Your task to perform on an android device: Go to network settings Image 0: 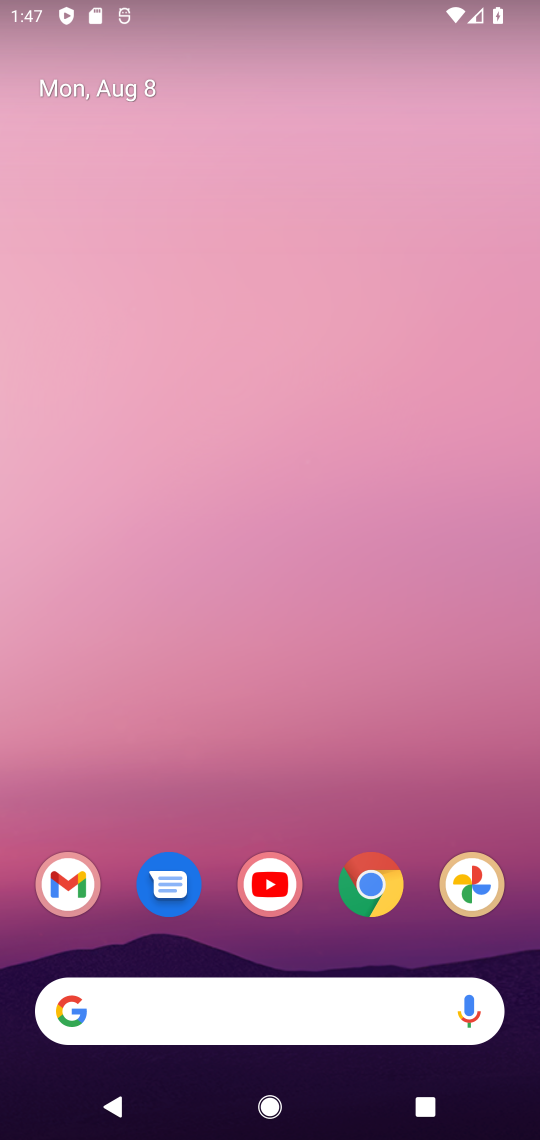
Step 0: drag from (304, 796) to (295, 18)
Your task to perform on an android device: Go to network settings Image 1: 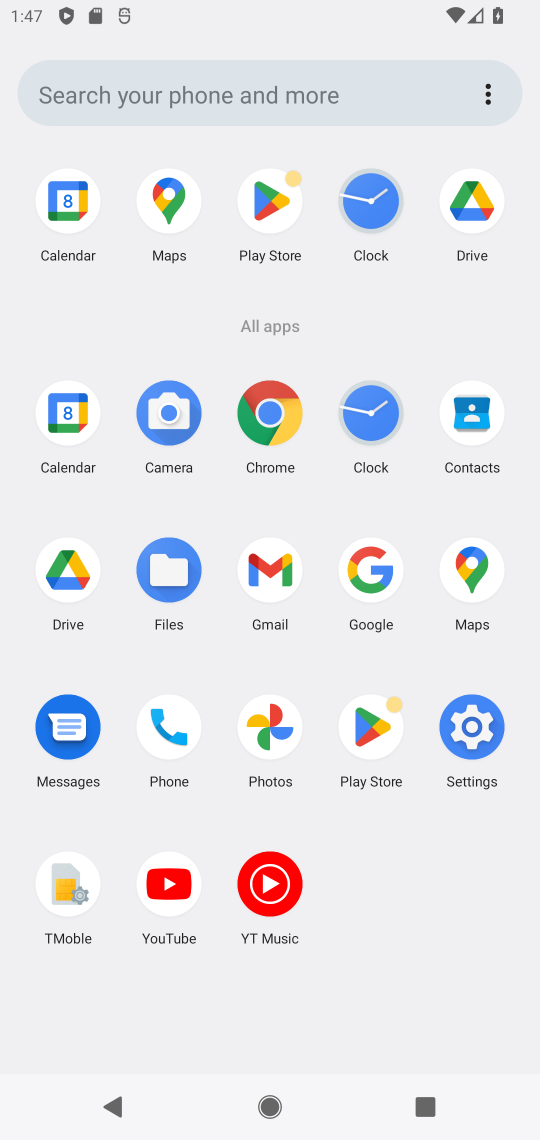
Step 1: click (466, 734)
Your task to perform on an android device: Go to network settings Image 2: 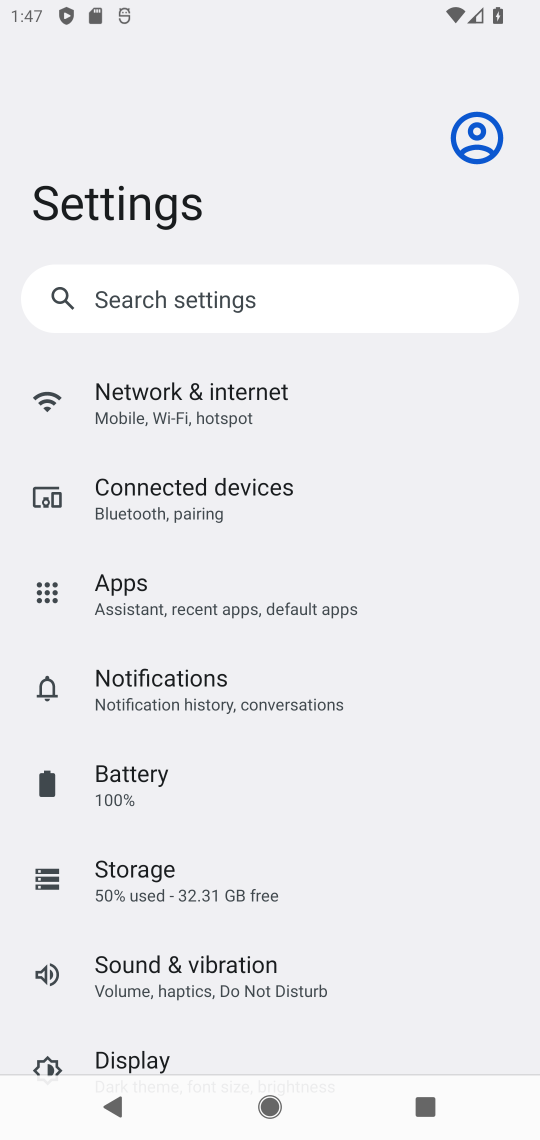
Step 2: click (175, 399)
Your task to perform on an android device: Go to network settings Image 3: 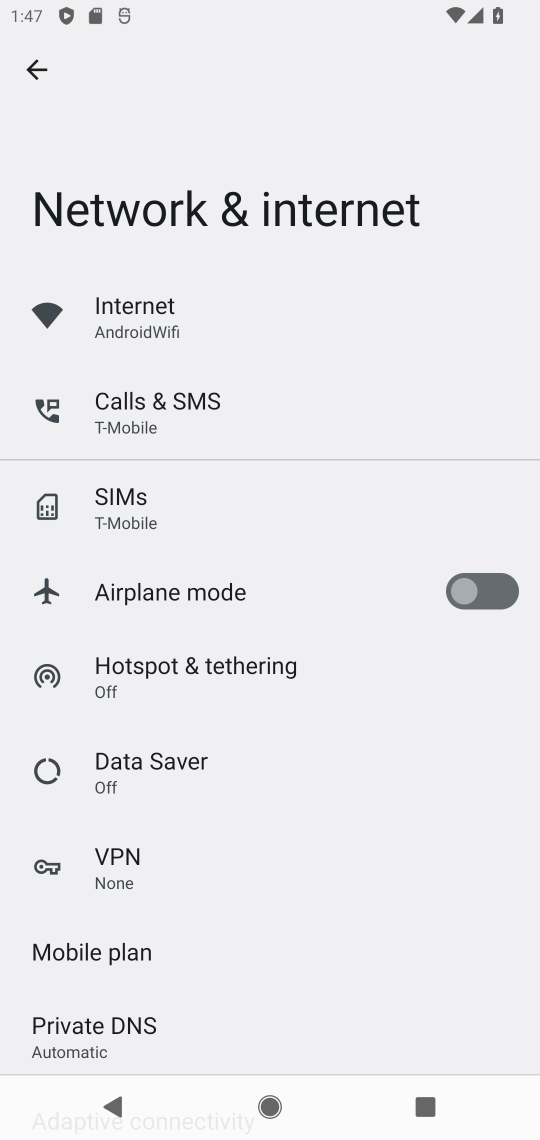
Step 3: task complete